Your task to perform on an android device: toggle javascript in the chrome app Image 0: 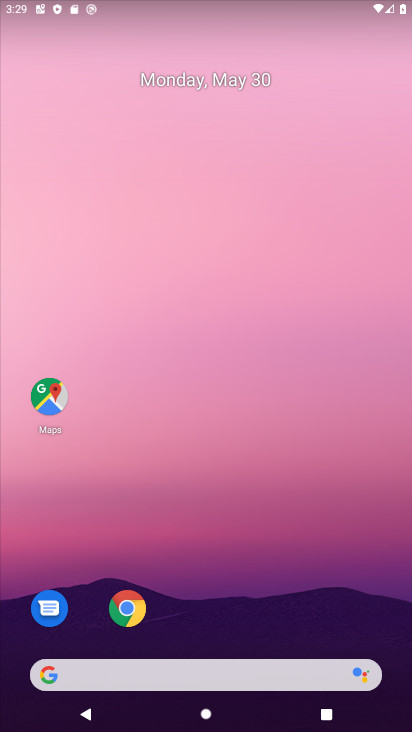
Step 0: drag from (213, 611) to (229, 216)
Your task to perform on an android device: toggle javascript in the chrome app Image 1: 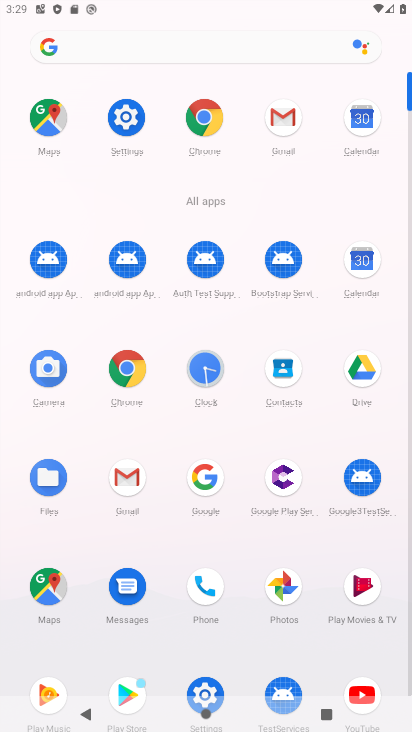
Step 1: click (121, 364)
Your task to perform on an android device: toggle javascript in the chrome app Image 2: 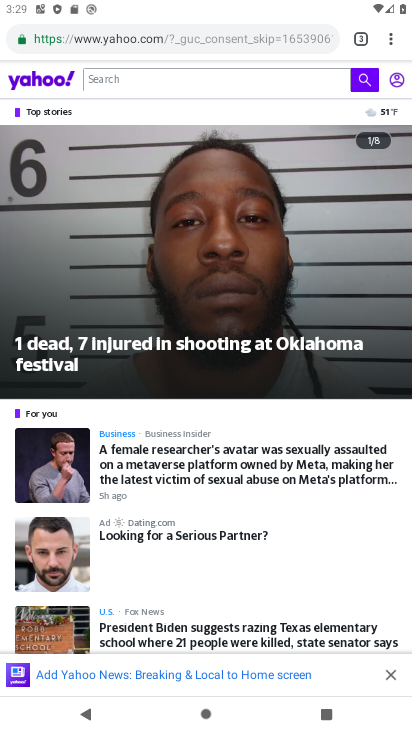
Step 2: click (392, 33)
Your task to perform on an android device: toggle javascript in the chrome app Image 3: 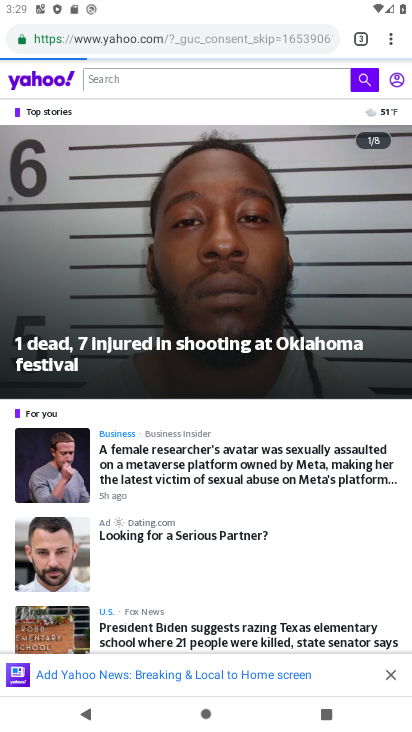
Step 3: click (390, 35)
Your task to perform on an android device: toggle javascript in the chrome app Image 4: 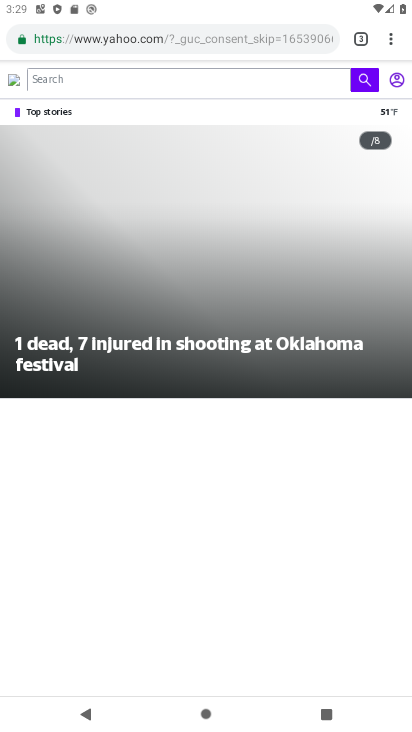
Step 4: click (384, 37)
Your task to perform on an android device: toggle javascript in the chrome app Image 5: 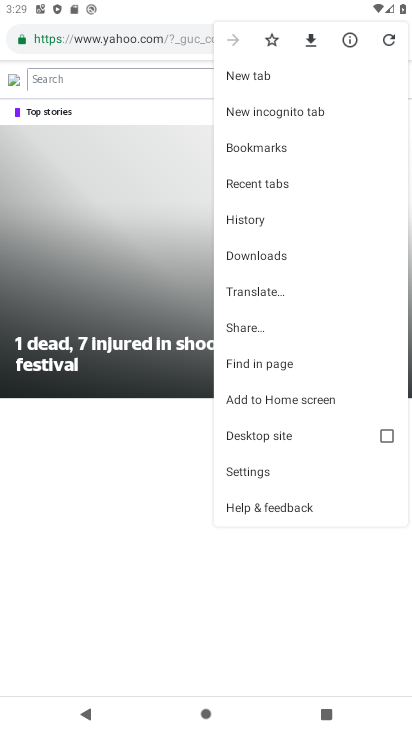
Step 5: drag from (307, 454) to (318, 228)
Your task to perform on an android device: toggle javascript in the chrome app Image 6: 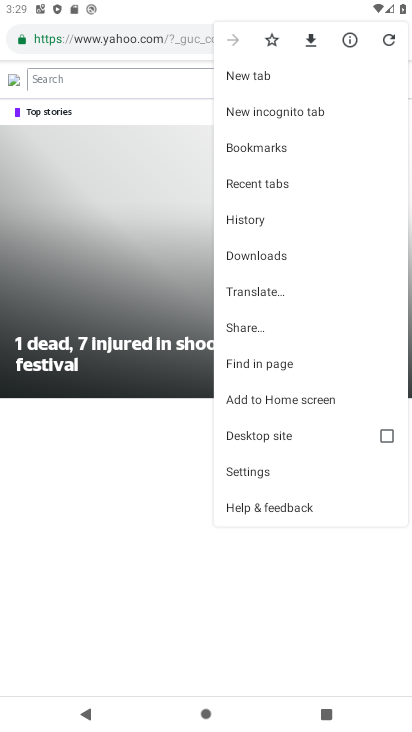
Step 6: click (246, 467)
Your task to perform on an android device: toggle javascript in the chrome app Image 7: 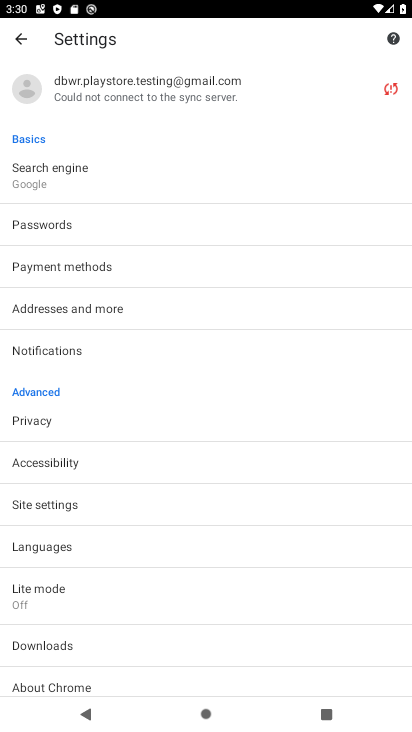
Step 7: click (75, 496)
Your task to perform on an android device: toggle javascript in the chrome app Image 8: 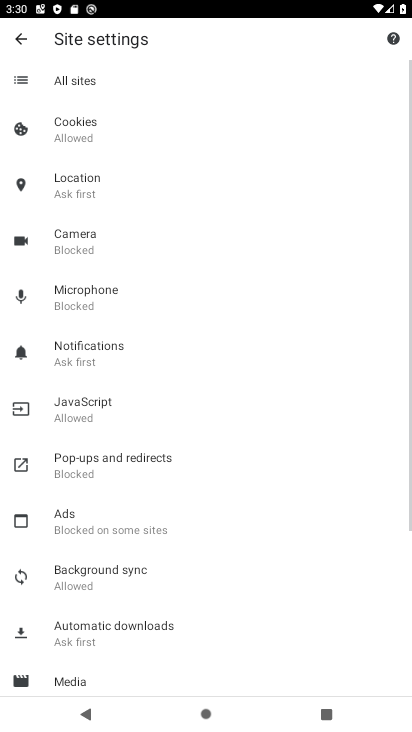
Step 8: click (89, 402)
Your task to perform on an android device: toggle javascript in the chrome app Image 9: 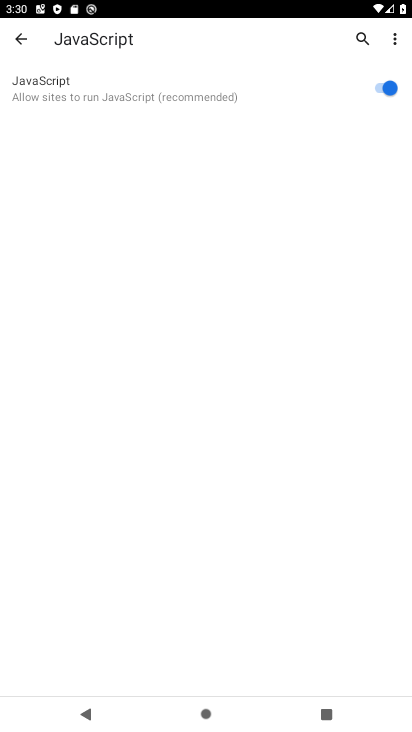
Step 9: click (380, 87)
Your task to perform on an android device: toggle javascript in the chrome app Image 10: 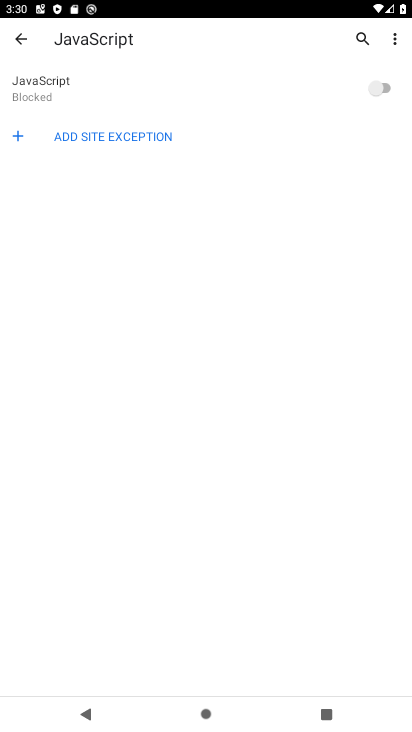
Step 10: task complete